Your task to perform on an android device: open app "Yahoo Mail" (install if not already installed) and go to login screen Image 0: 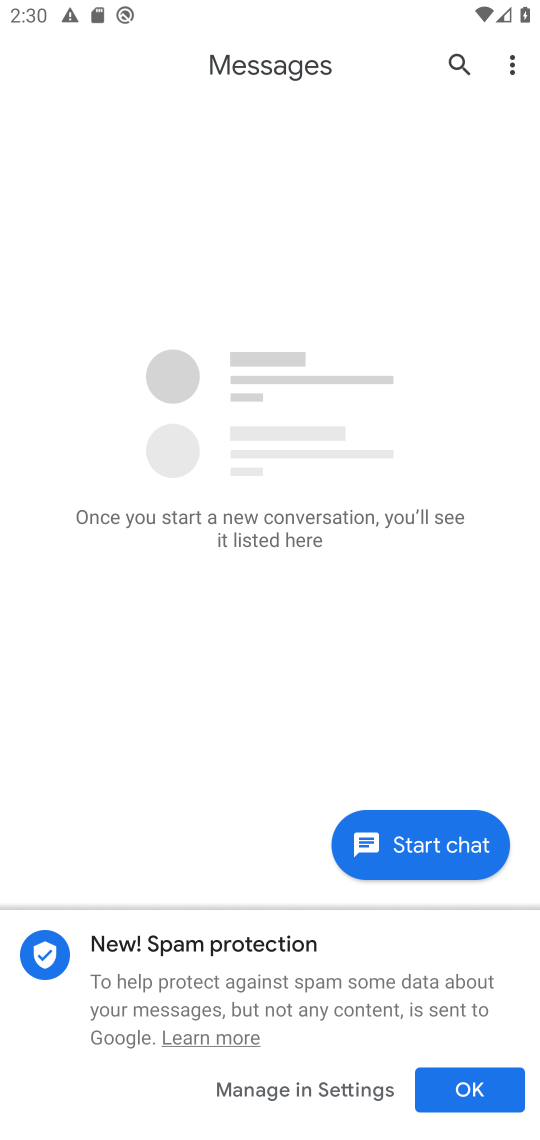
Step 0: press home button
Your task to perform on an android device: open app "Yahoo Mail" (install if not already installed) and go to login screen Image 1: 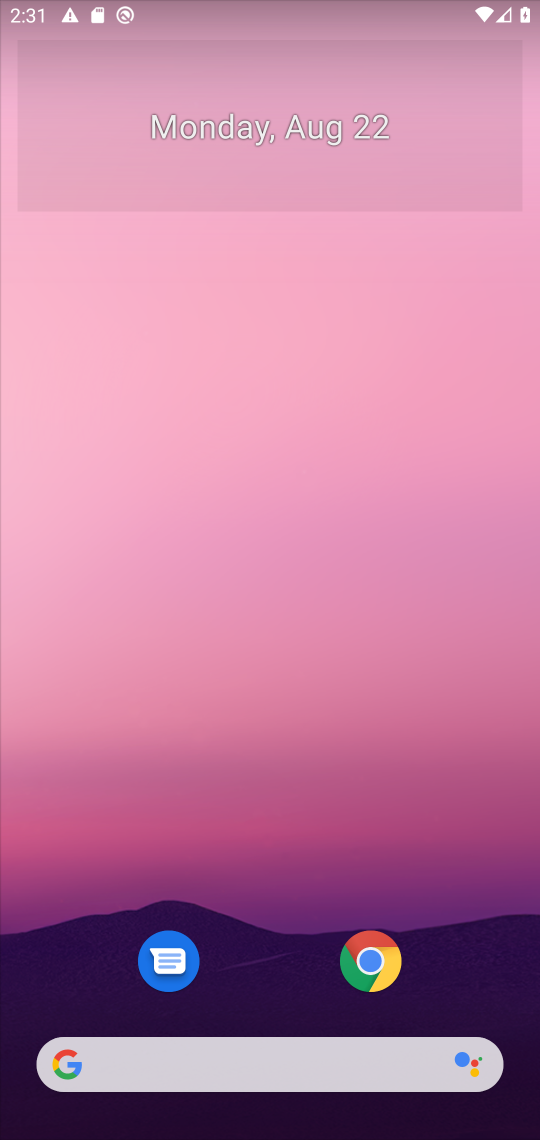
Step 1: drag from (482, 960) to (496, 127)
Your task to perform on an android device: open app "Yahoo Mail" (install if not already installed) and go to login screen Image 2: 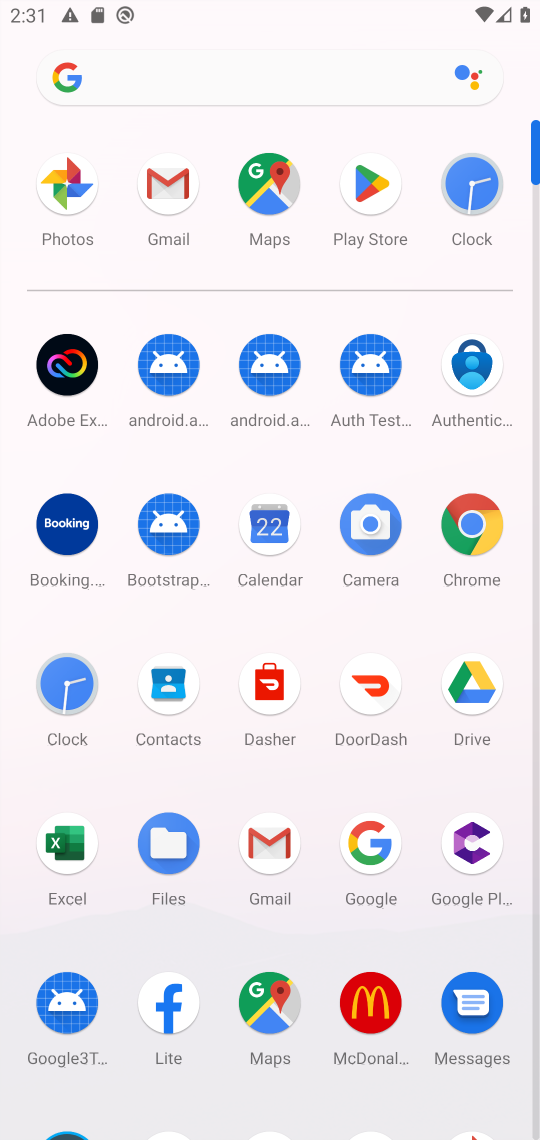
Step 2: click (366, 184)
Your task to perform on an android device: open app "Yahoo Mail" (install if not already installed) and go to login screen Image 3: 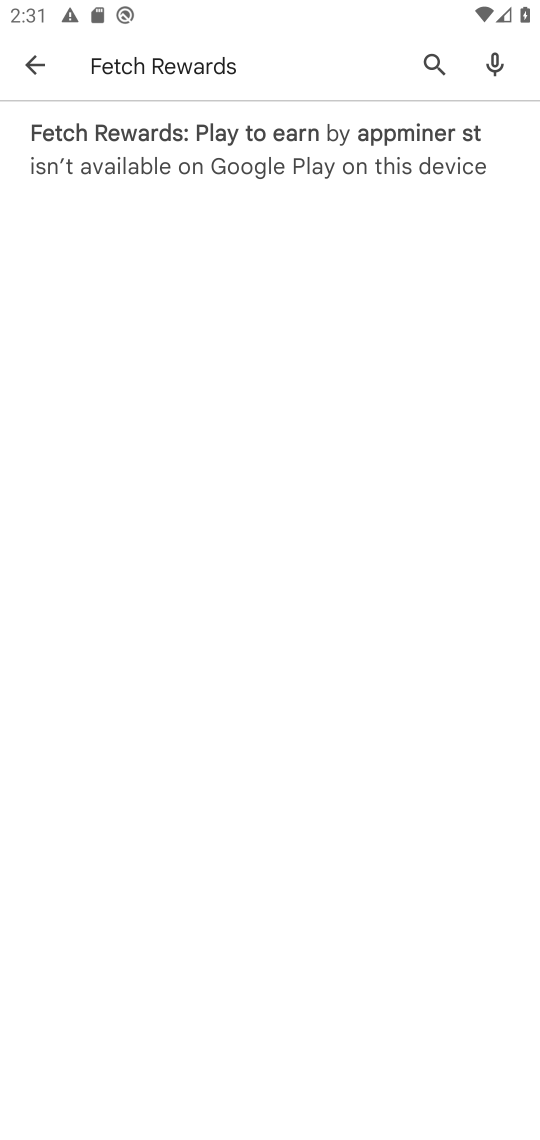
Step 3: press back button
Your task to perform on an android device: open app "Yahoo Mail" (install if not already installed) and go to login screen Image 4: 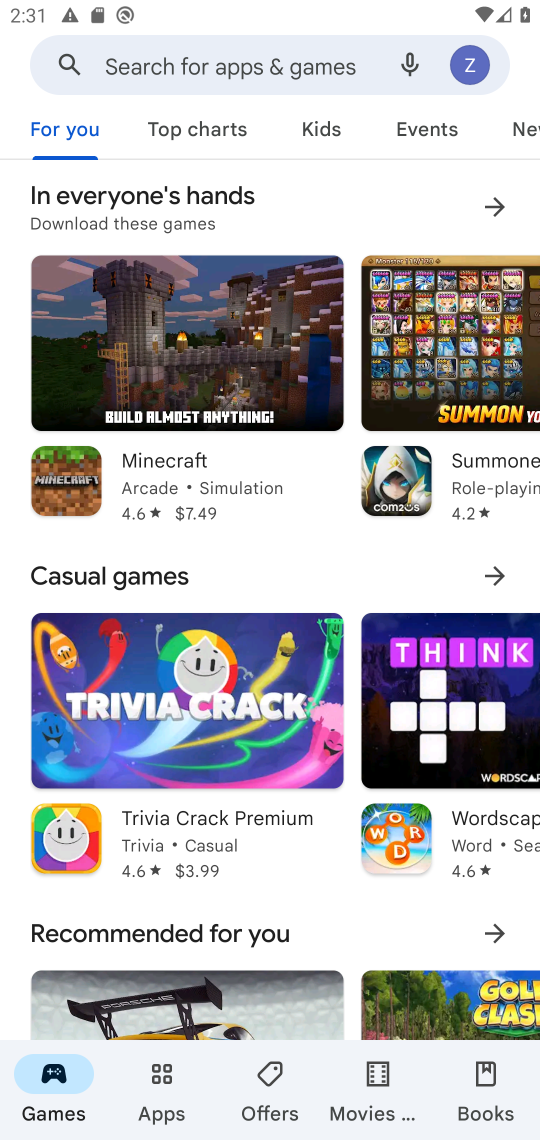
Step 4: click (295, 67)
Your task to perform on an android device: open app "Yahoo Mail" (install if not already installed) and go to login screen Image 5: 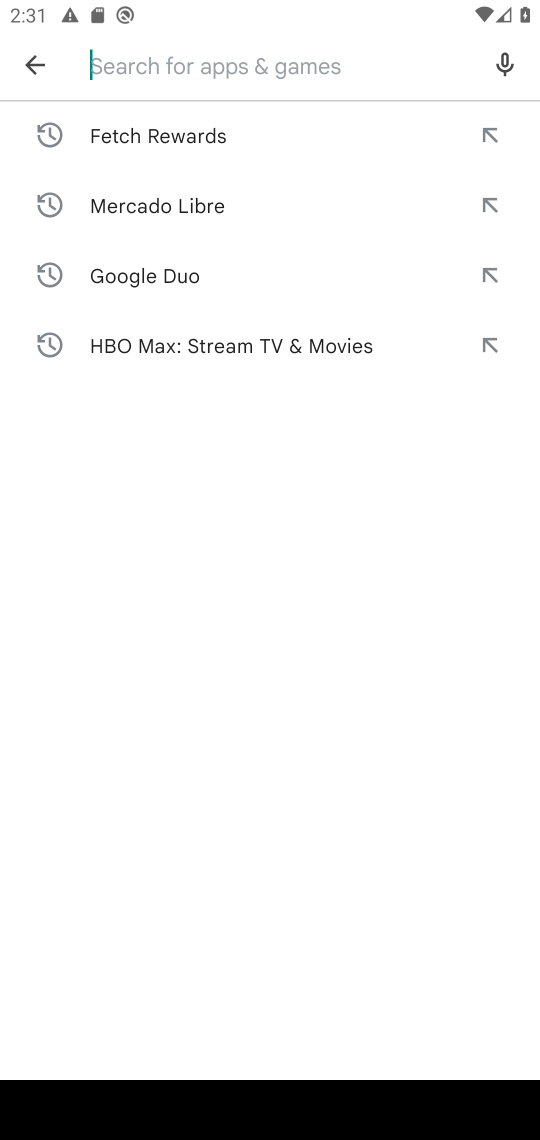
Step 5: type "yahoo mail"
Your task to perform on an android device: open app "Yahoo Mail" (install if not already installed) and go to login screen Image 6: 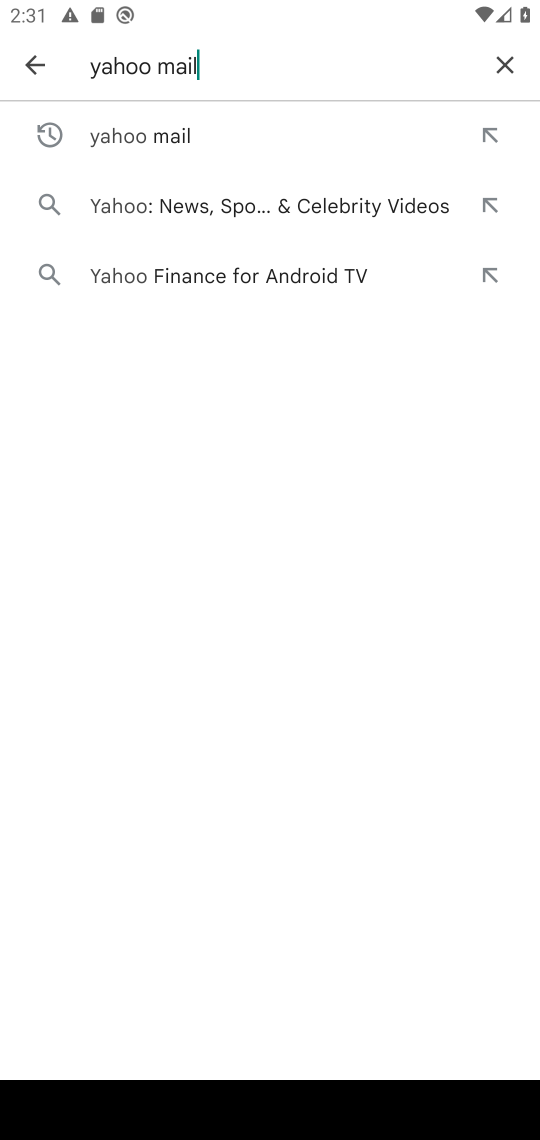
Step 6: press enter
Your task to perform on an android device: open app "Yahoo Mail" (install if not already installed) and go to login screen Image 7: 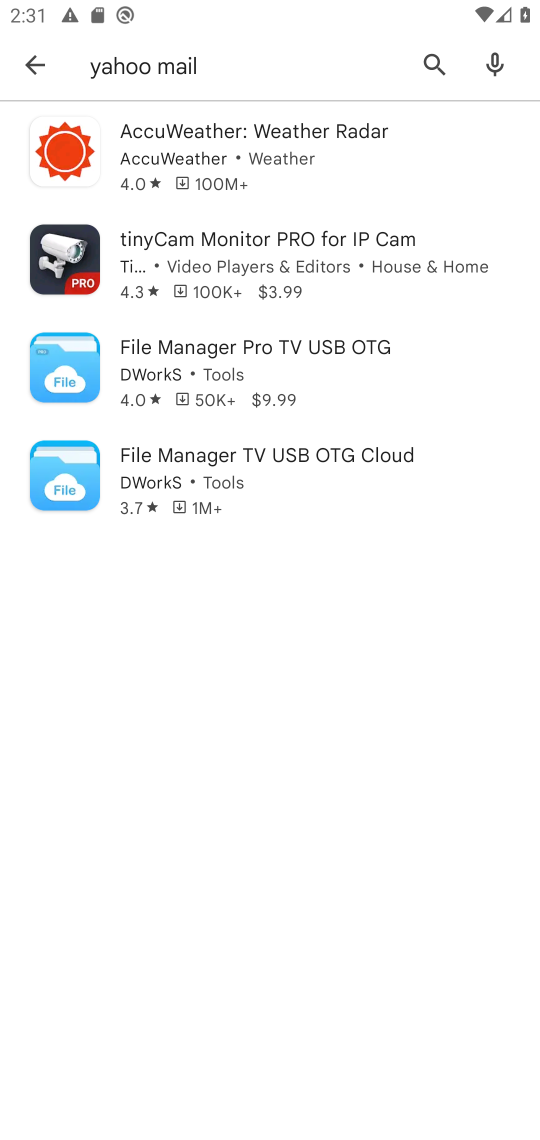
Step 7: task complete